Your task to perform on an android device: set the timer Image 0: 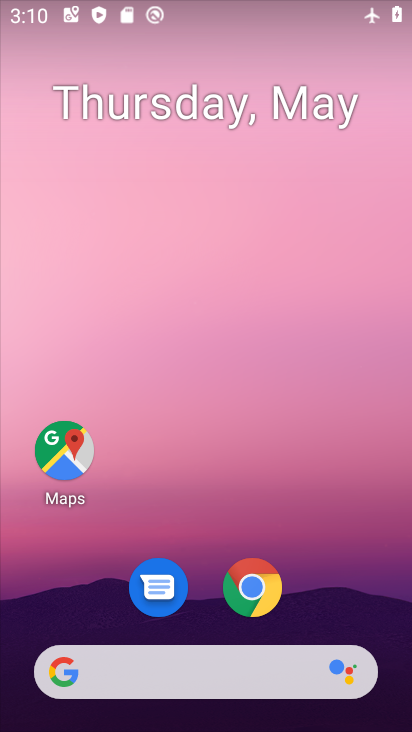
Step 0: drag from (171, 624) to (243, 315)
Your task to perform on an android device: set the timer Image 1: 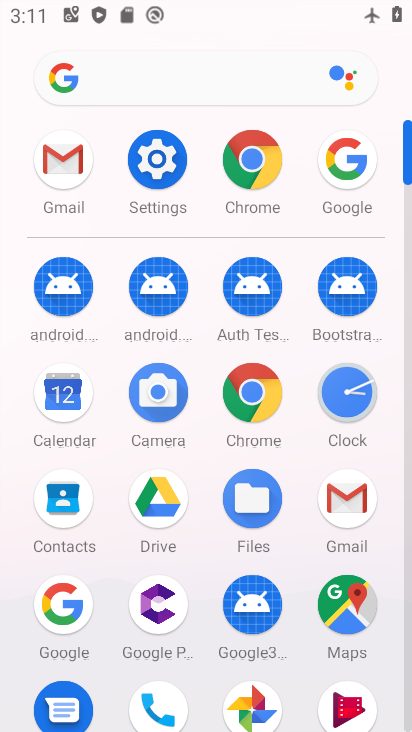
Step 1: click (331, 409)
Your task to perform on an android device: set the timer Image 2: 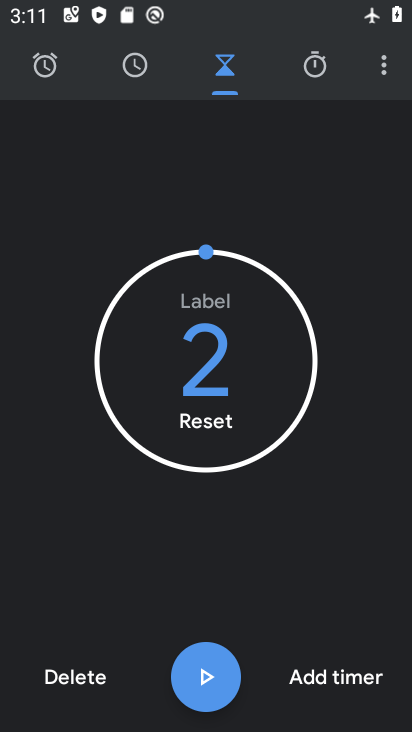
Step 2: click (392, 90)
Your task to perform on an android device: set the timer Image 3: 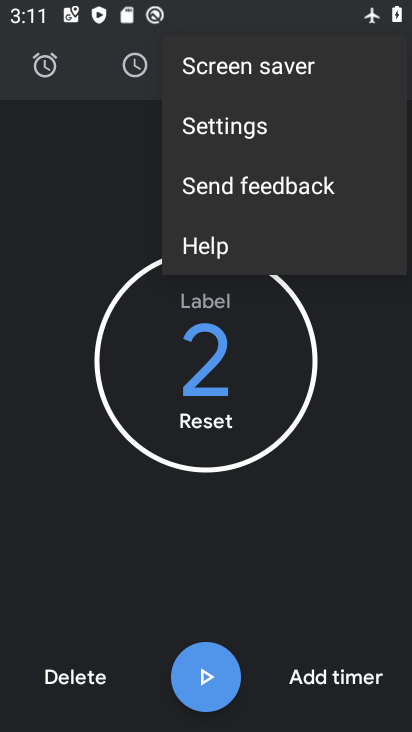
Step 3: click (103, 321)
Your task to perform on an android device: set the timer Image 4: 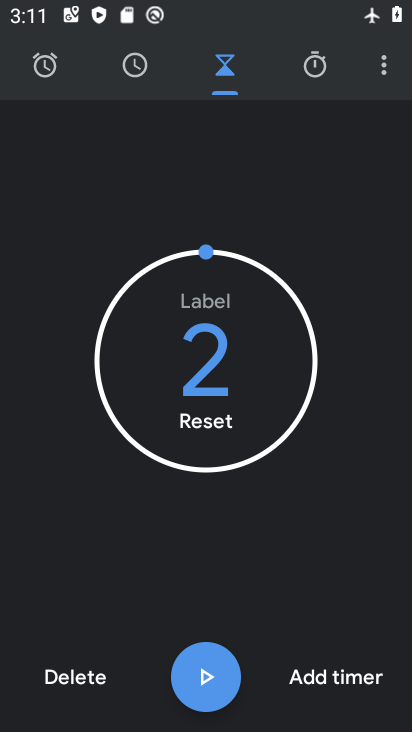
Step 4: click (215, 687)
Your task to perform on an android device: set the timer Image 5: 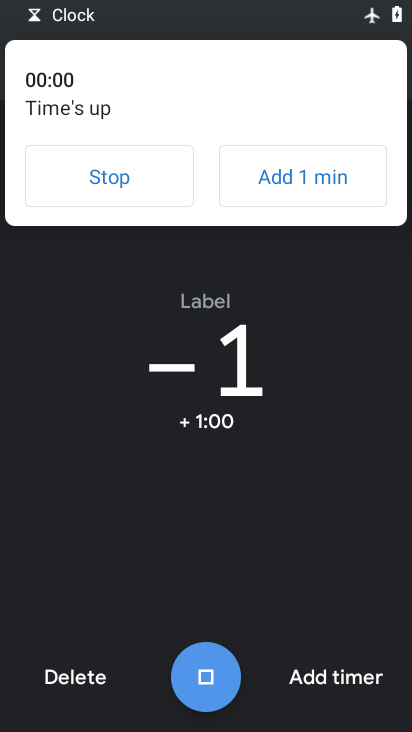
Step 5: task complete